Your task to perform on an android device: turn off priority inbox in the gmail app Image 0: 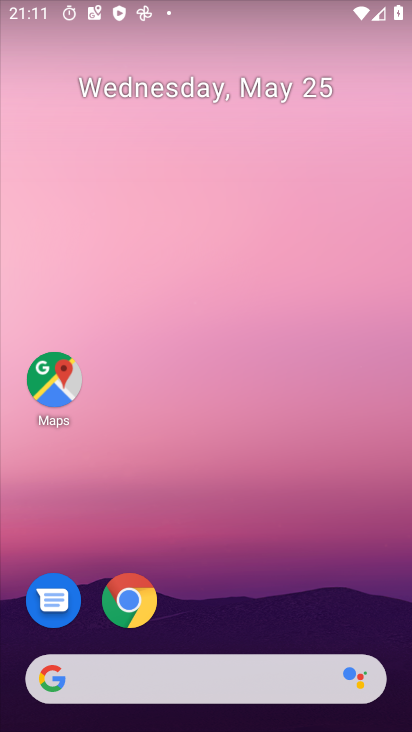
Step 0: drag from (347, 565) to (343, 127)
Your task to perform on an android device: turn off priority inbox in the gmail app Image 1: 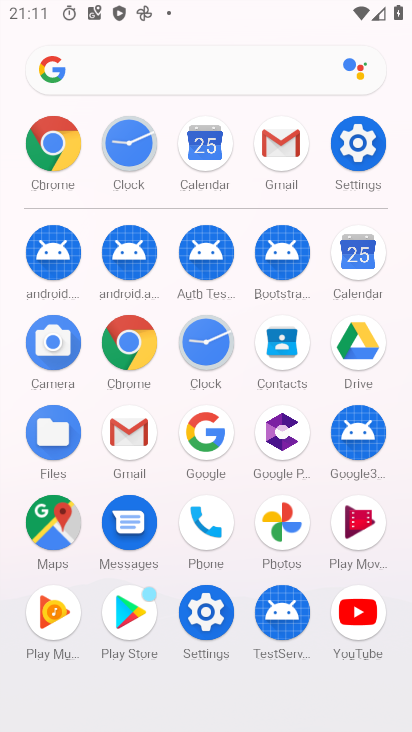
Step 1: click (122, 441)
Your task to perform on an android device: turn off priority inbox in the gmail app Image 2: 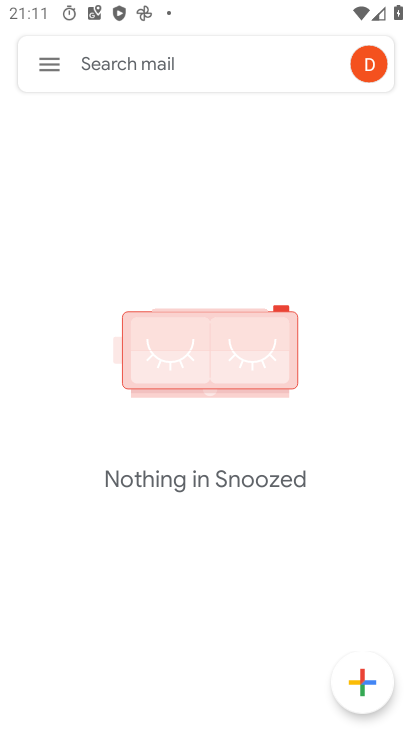
Step 2: click (58, 61)
Your task to perform on an android device: turn off priority inbox in the gmail app Image 3: 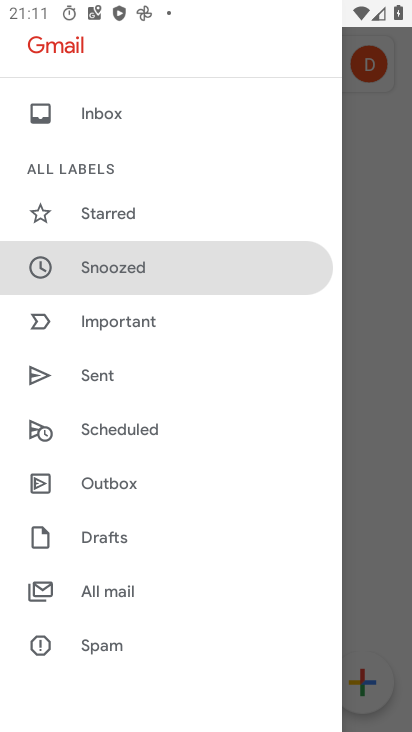
Step 3: drag from (190, 690) to (238, 112)
Your task to perform on an android device: turn off priority inbox in the gmail app Image 4: 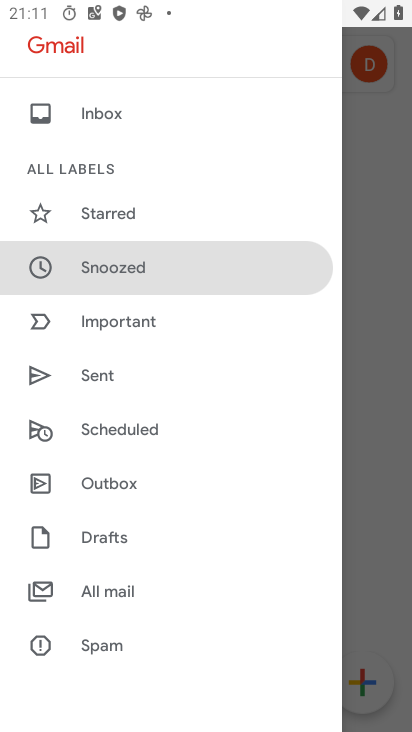
Step 4: drag from (106, 594) to (156, 115)
Your task to perform on an android device: turn off priority inbox in the gmail app Image 5: 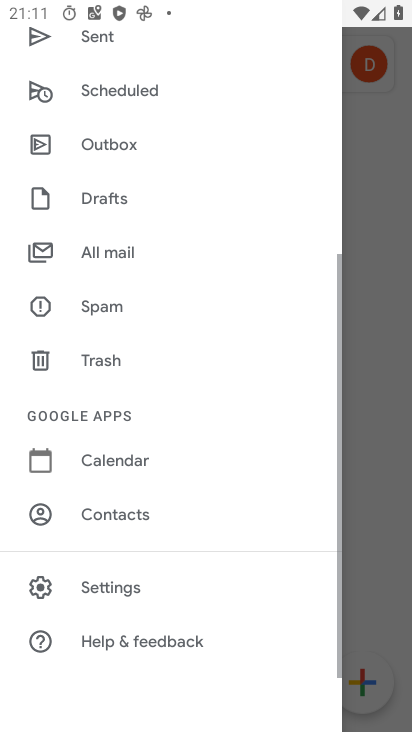
Step 5: click (129, 591)
Your task to perform on an android device: turn off priority inbox in the gmail app Image 6: 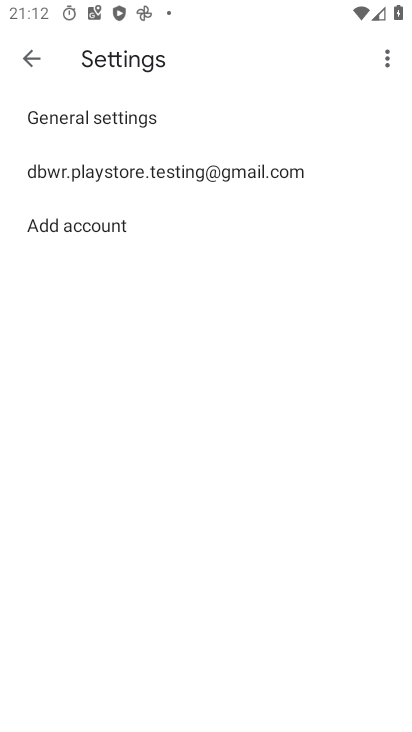
Step 6: click (276, 174)
Your task to perform on an android device: turn off priority inbox in the gmail app Image 7: 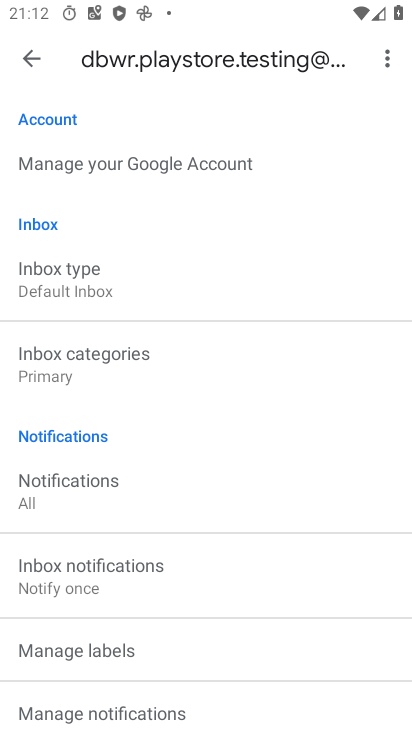
Step 7: drag from (198, 631) to (233, 259)
Your task to perform on an android device: turn off priority inbox in the gmail app Image 8: 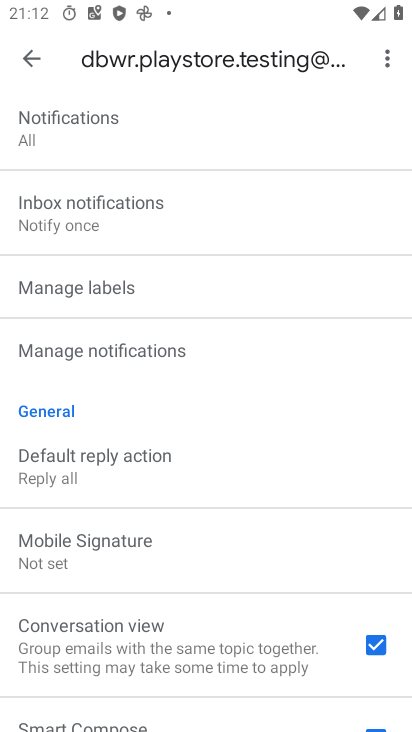
Step 8: drag from (263, 603) to (296, 286)
Your task to perform on an android device: turn off priority inbox in the gmail app Image 9: 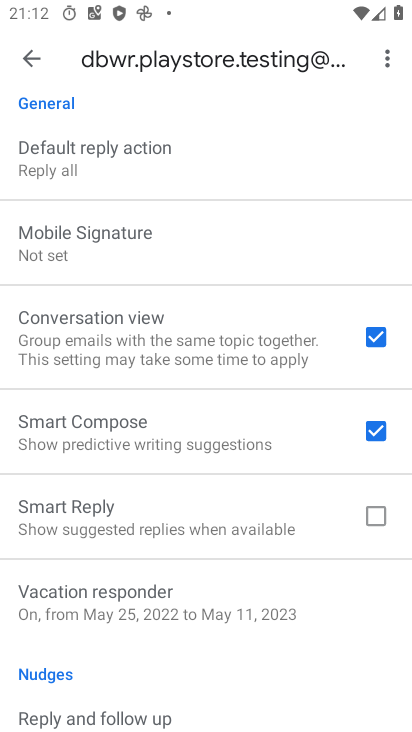
Step 9: drag from (240, 111) to (245, 658)
Your task to perform on an android device: turn off priority inbox in the gmail app Image 10: 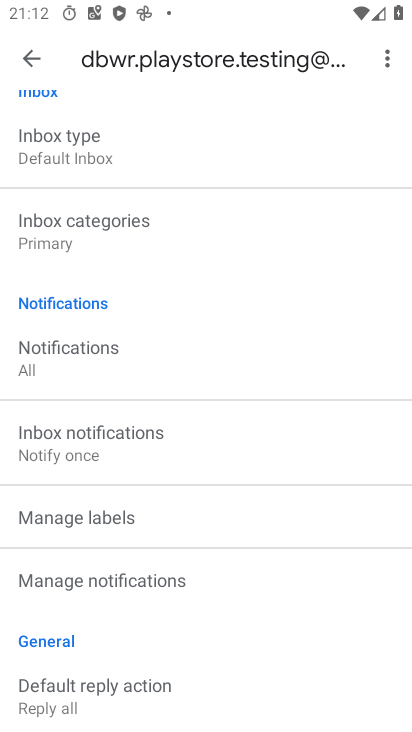
Step 10: click (136, 218)
Your task to perform on an android device: turn off priority inbox in the gmail app Image 11: 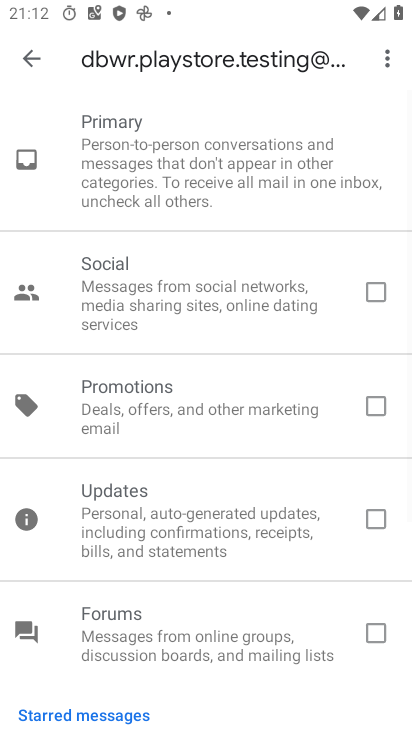
Step 11: click (40, 65)
Your task to perform on an android device: turn off priority inbox in the gmail app Image 12: 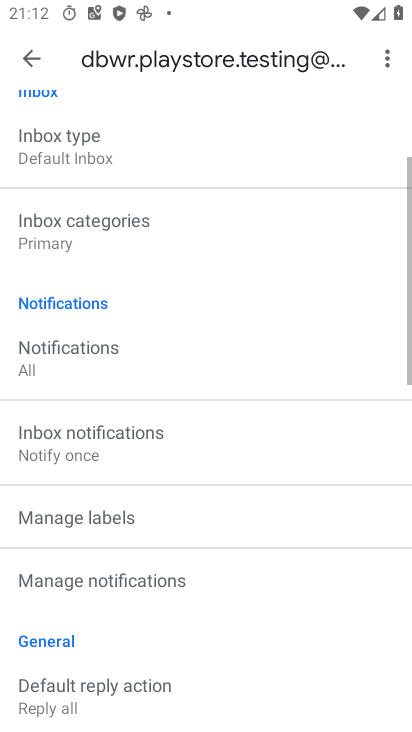
Step 12: drag from (140, 204) to (187, 501)
Your task to perform on an android device: turn off priority inbox in the gmail app Image 13: 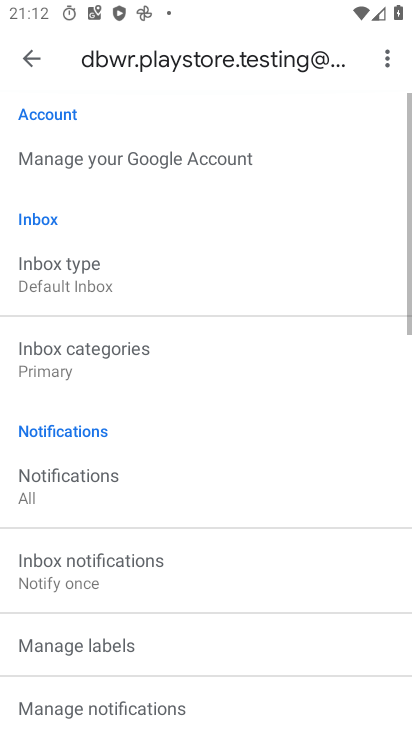
Step 13: click (121, 265)
Your task to perform on an android device: turn off priority inbox in the gmail app Image 14: 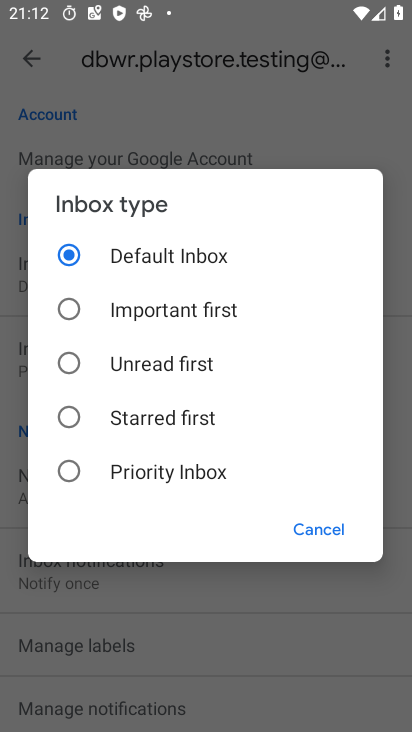
Step 14: task complete